Your task to perform on an android device: turn smart compose on in the gmail app Image 0: 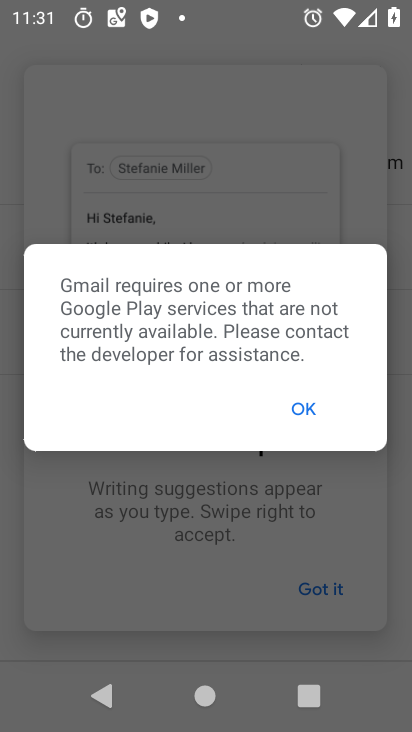
Step 0: press home button
Your task to perform on an android device: turn smart compose on in the gmail app Image 1: 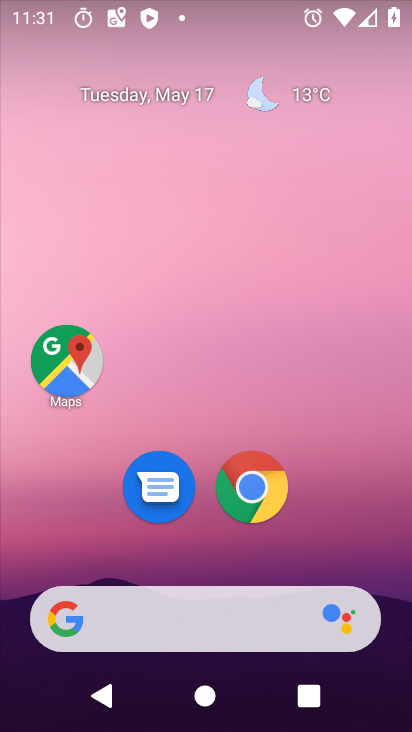
Step 1: drag from (228, 727) to (201, 169)
Your task to perform on an android device: turn smart compose on in the gmail app Image 2: 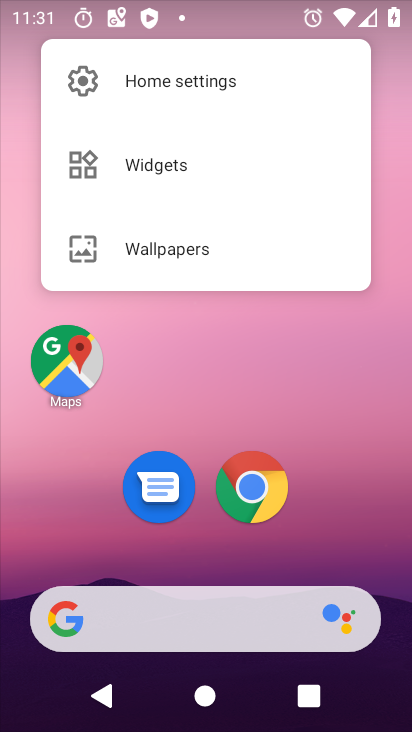
Step 2: click (237, 367)
Your task to perform on an android device: turn smart compose on in the gmail app Image 3: 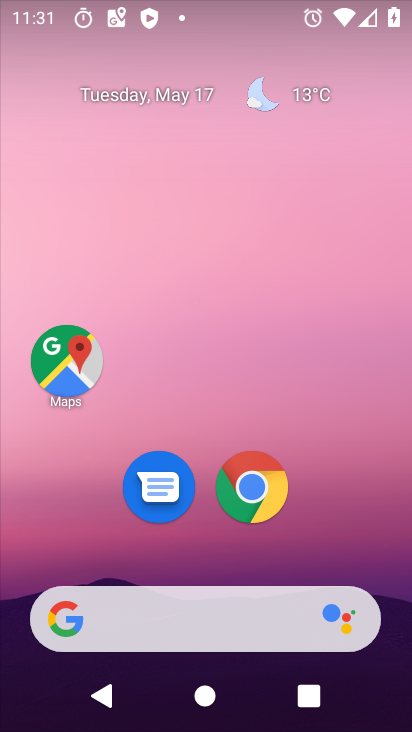
Step 3: drag from (198, 728) to (141, 20)
Your task to perform on an android device: turn smart compose on in the gmail app Image 4: 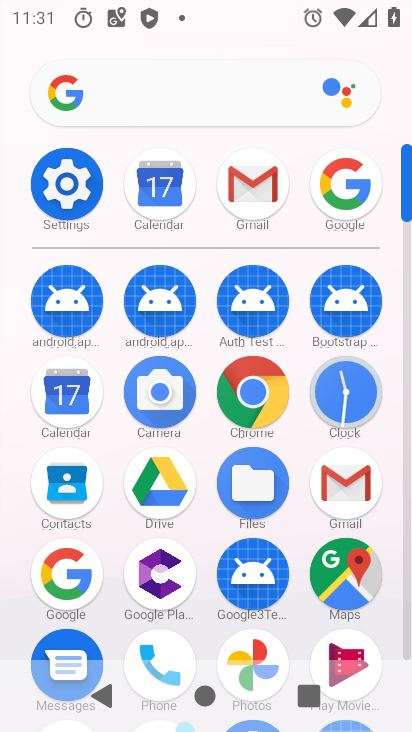
Step 4: click (346, 484)
Your task to perform on an android device: turn smart compose on in the gmail app Image 5: 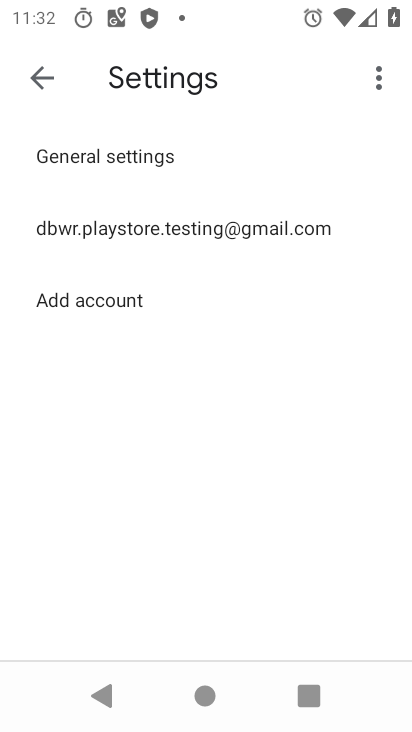
Step 5: click (148, 221)
Your task to perform on an android device: turn smart compose on in the gmail app Image 6: 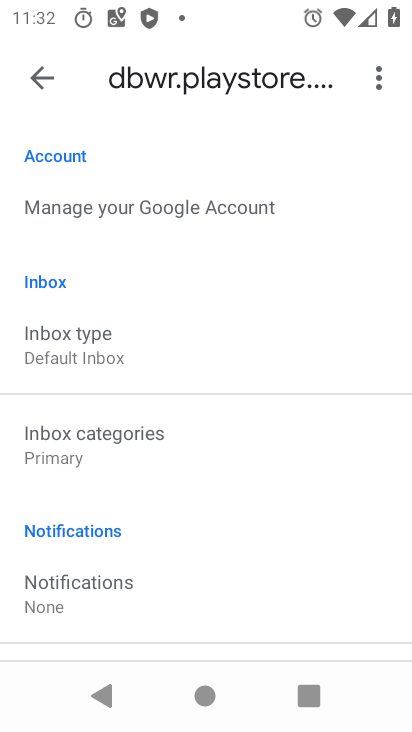
Step 6: task complete